Your task to perform on an android device: Open display settings Image 0: 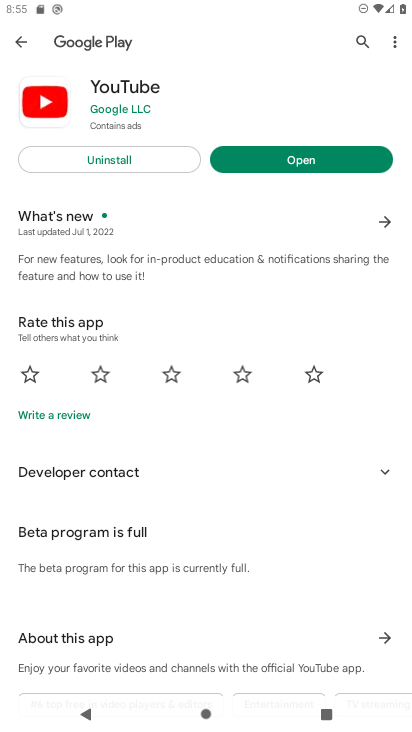
Step 0: press home button
Your task to perform on an android device: Open display settings Image 1: 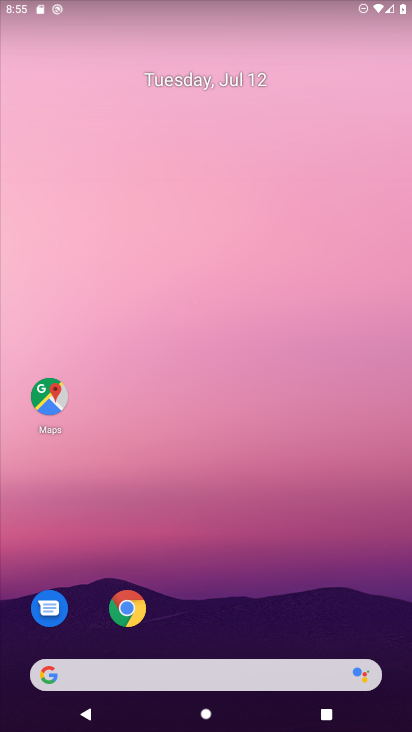
Step 1: drag from (190, 617) to (206, 215)
Your task to perform on an android device: Open display settings Image 2: 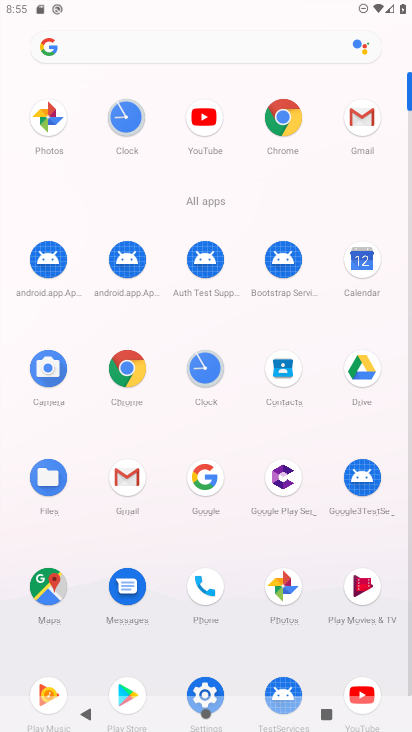
Step 2: click (199, 683)
Your task to perform on an android device: Open display settings Image 3: 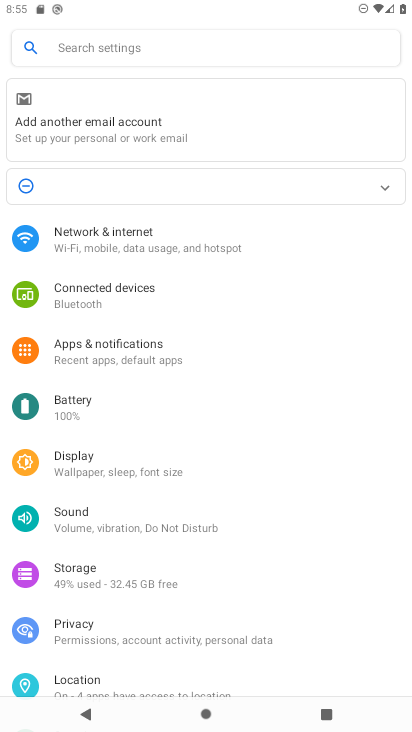
Step 3: click (82, 456)
Your task to perform on an android device: Open display settings Image 4: 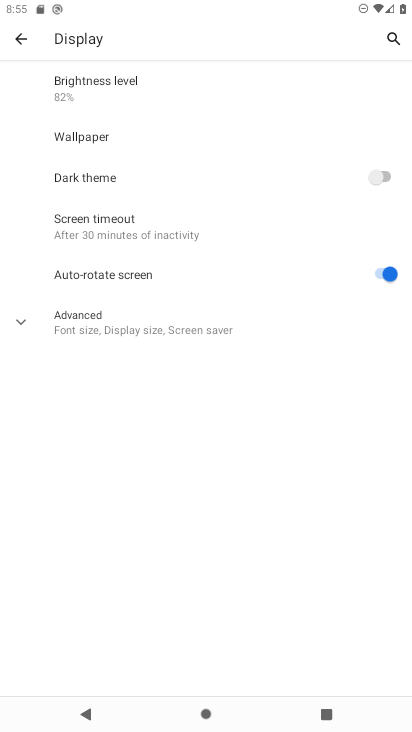
Step 4: task complete